Your task to perform on an android device: Open settings on Google Maps Image 0: 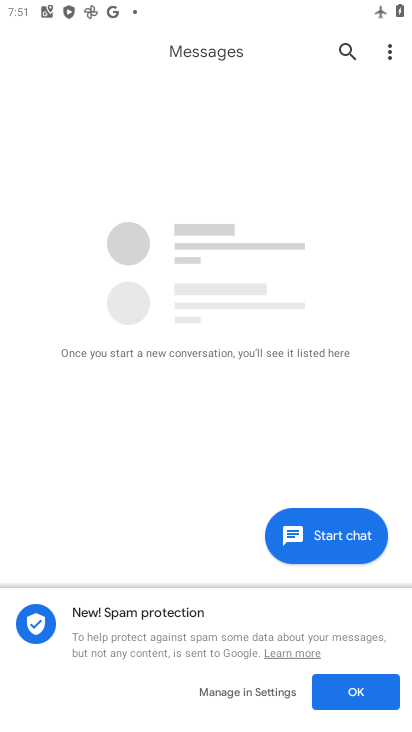
Step 0: press home button
Your task to perform on an android device: Open settings on Google Maps Image 1: 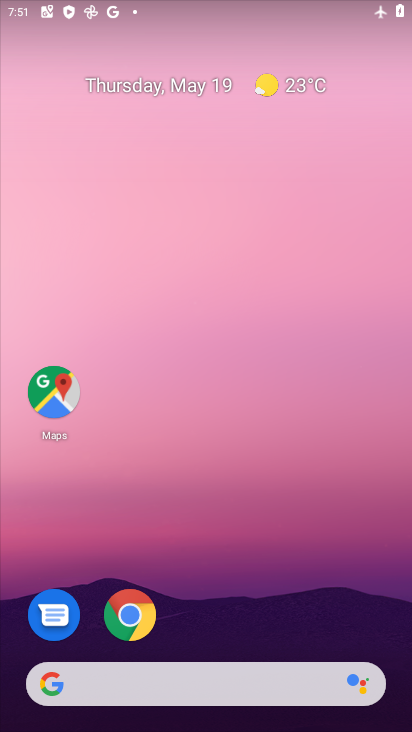
Step 1: drag from (268, 614) to (276, 28)
Your task to perform on an android device: Open settings on Google Maps Image 2: 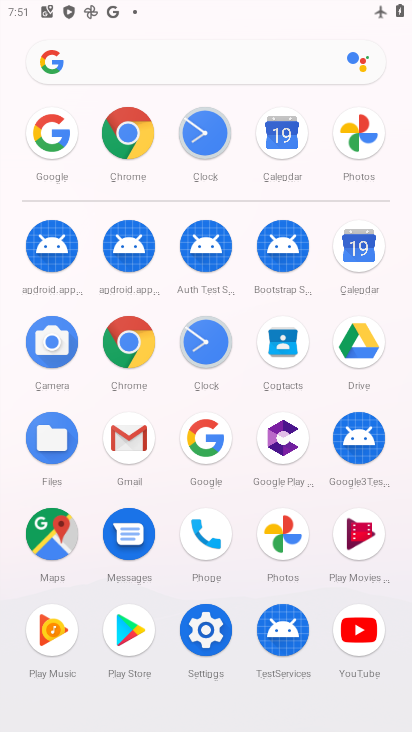
Step 2: click (55, 516)
Your task to perform on an android device: Open settings on Google Maps Image 3: 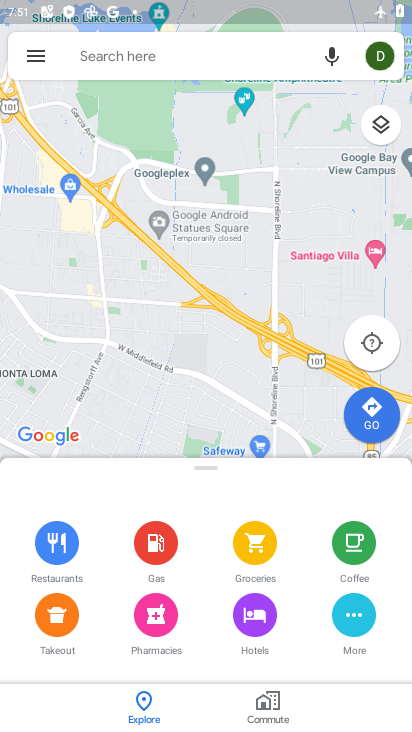
Step 3: click (22, 60)
Your task to perform on an android device: Open settings on Google Maps Image 4: 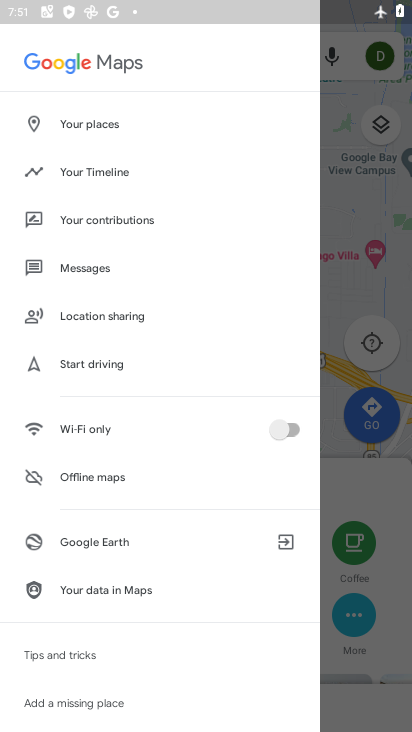
Step 4: drag from (139, 681) to (198, 81)
Your task to perform on an android device: Open settings on Google Maps Image 5: 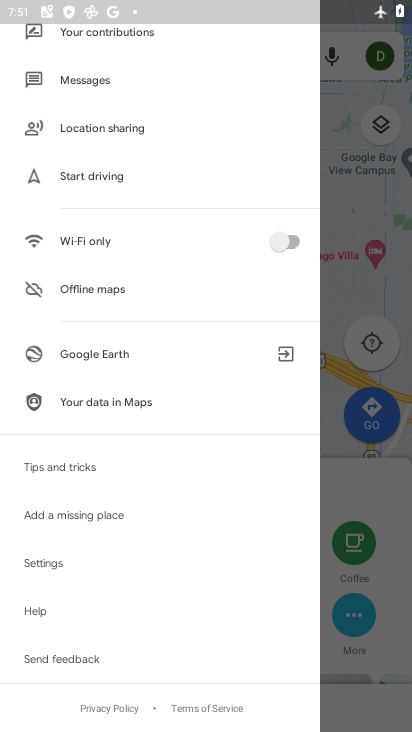
Step 5: click (85, 572)
Your task to perform on an android device: Open settings on Google Maps Image 6: 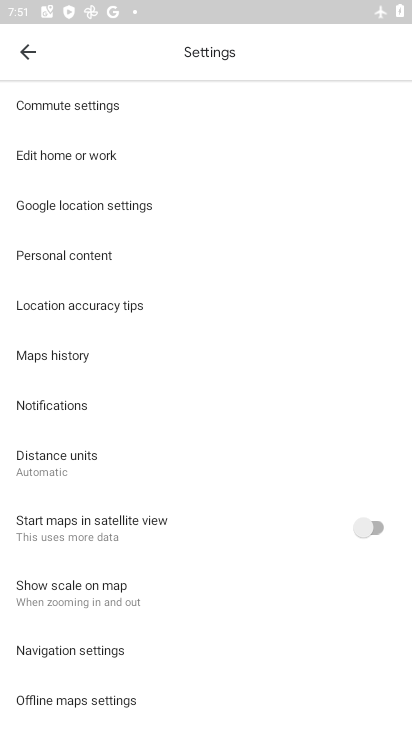
Step 6: task complete